Your task to perform on an android device: Go to Maps Image 0: 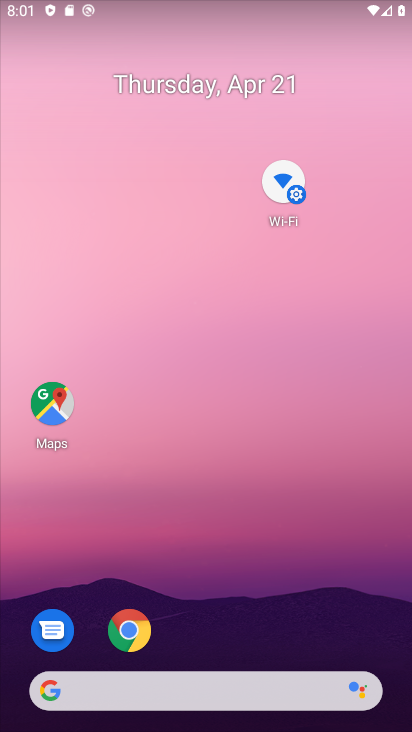
Step 0: click (57, 409)
Your task to perform on an android device: Go to Maps Image 1: 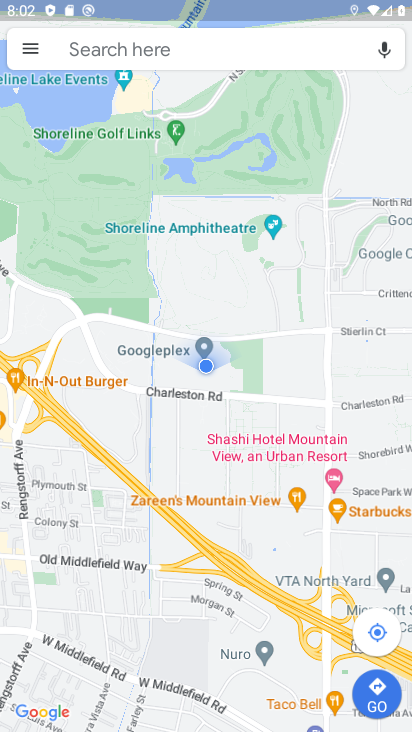
Step 1: task complete